Your task to perform on an android device: Open Youtube and go to "Your channel" Image 0: 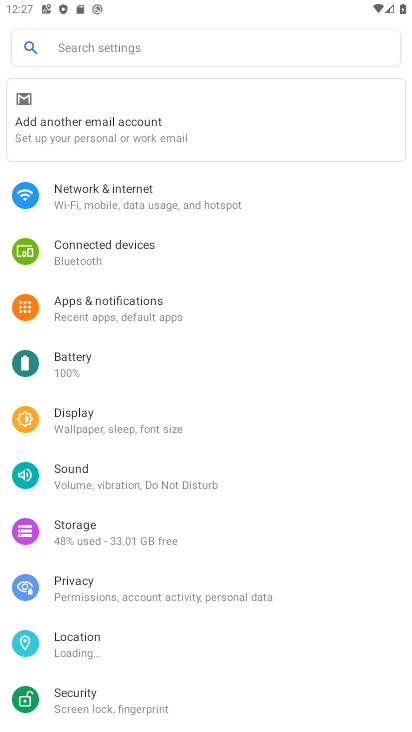
Step 0: press home button
Your task to perform on an android device: Open Youtube and go to "Your channel" Image 1: 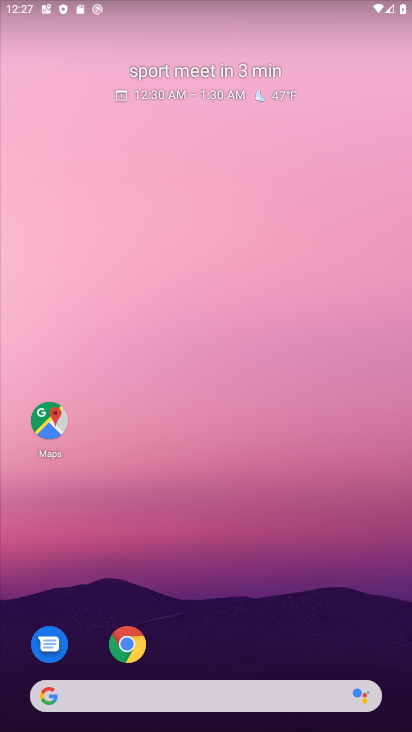
Step 1: drag from (236, 590) to (289, 136)
Your task to perform on an android device: Open Youtube and go to "Your channel" Image 2: 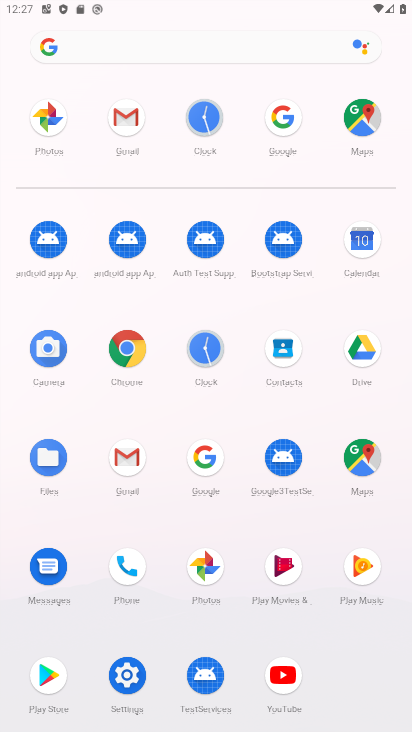
Step 2: click (274, 675)
Your task to perform on an android device: Open Youtube and go to "Your channel" Image 3: 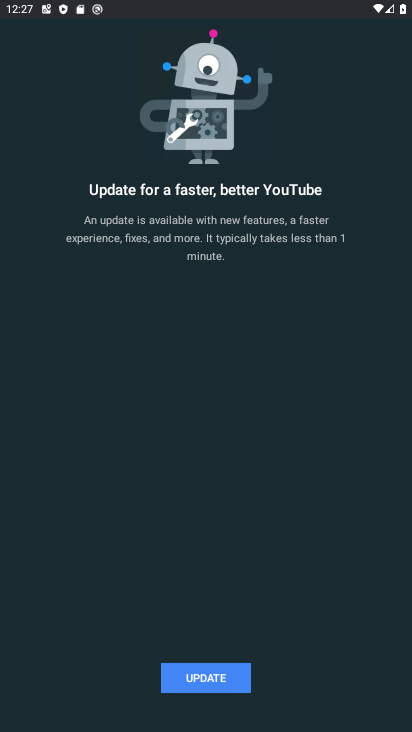
Step 3: click (213, 683)
Your task to perform on an android device: Open Youtube and go to "Your channel" Image 4: 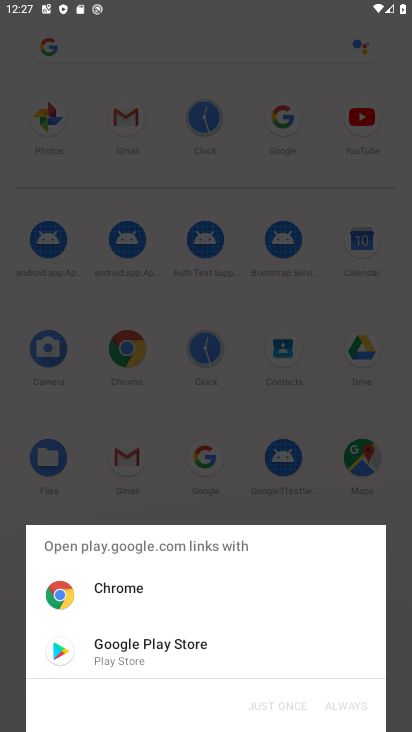
Step 4: click (115, 667)
Your task to perform on an android device: Open Youtube and go to "Your channel" Image 5: 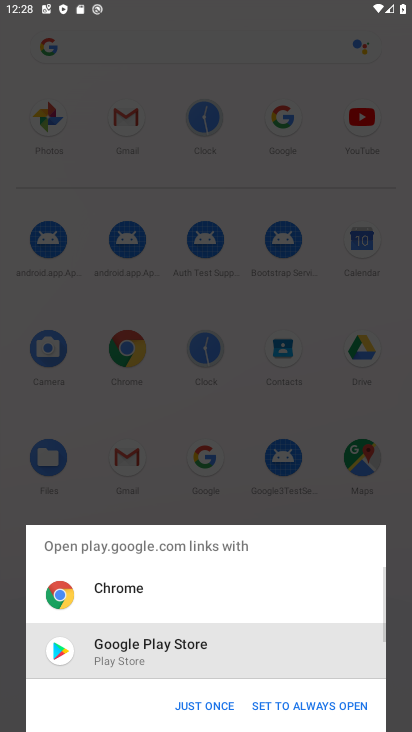
Step 5: click (224, 705)
Your task to perform on an android device: Open Youtube and go to "Your channel" Image 6: 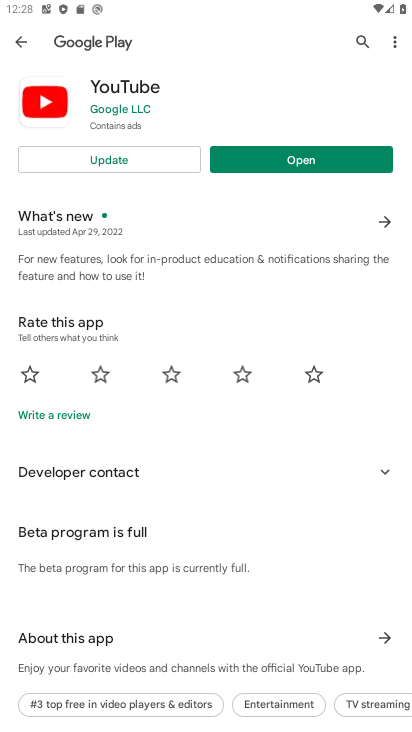
Step 6: click (134, 158)
Your task to perform on an android device: Open Youtube and go to "Your channel" Image 7: 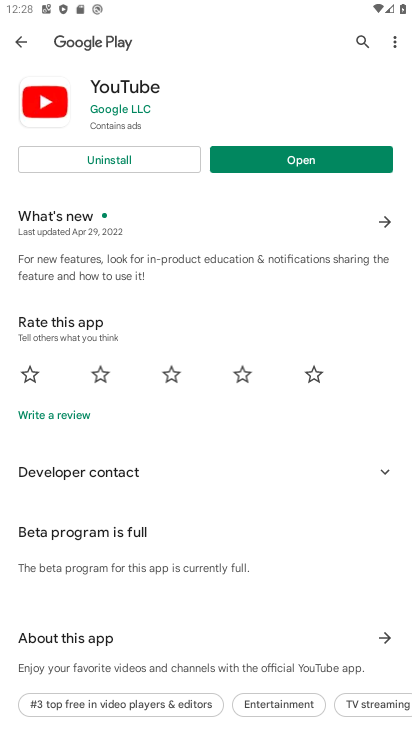
Step 7: click (274, 164)
Your task to perform on an android device: Open Youtube and go to "Your channel" Image 8: 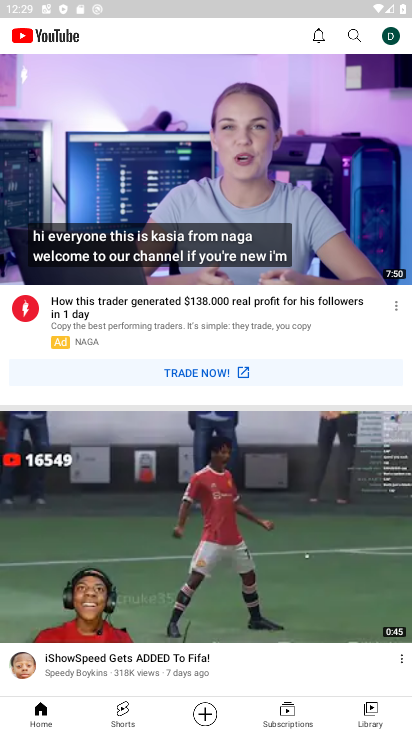
Step 8: click (395, 33)
Your task to perform on an android device: Open Youtube and go to "Your channel" Image 9: 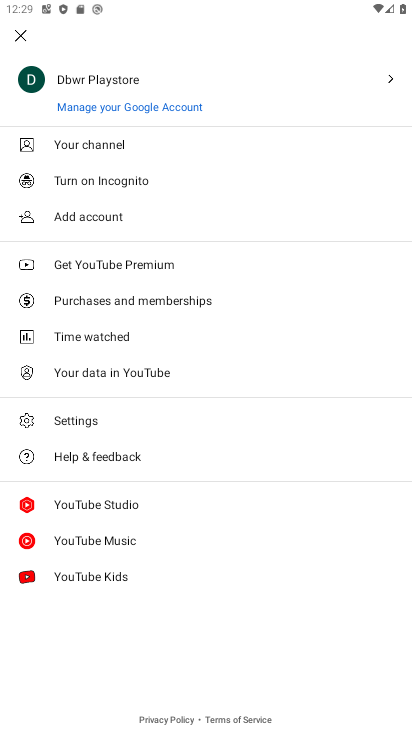
Step 9: click (88, 140)
Your task to perform on an android device: Open Youtube and go to "Your channel" Image 10: 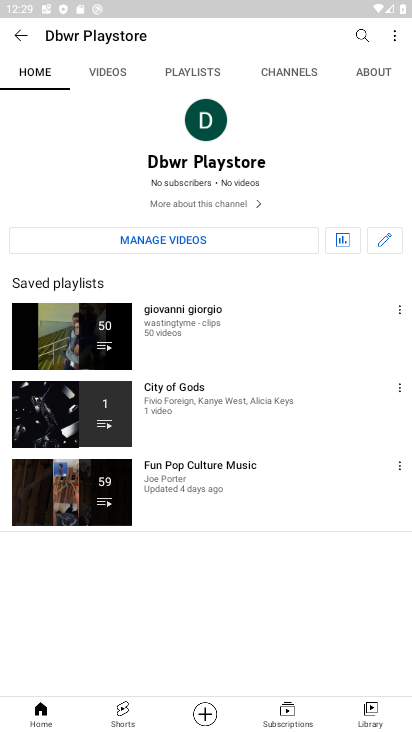
Step 10: task complete